Your task to perform on an android device: turn on translation in the chrome app Image 0: 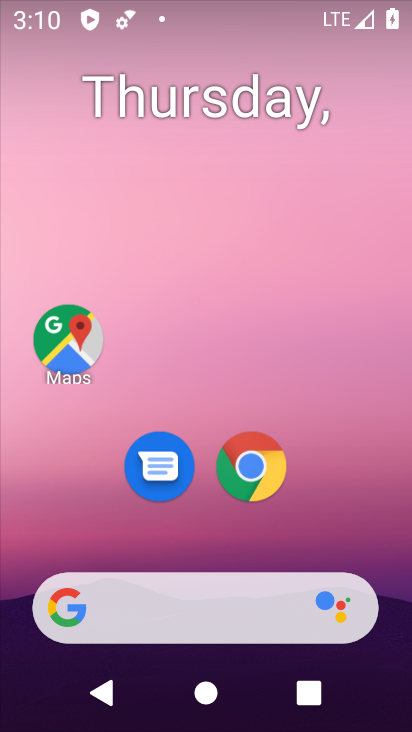
Step 0: drag from (218, 559) to (296, 48)
Your task to perform on an android device: turn on translation in the chrome app Image 1: 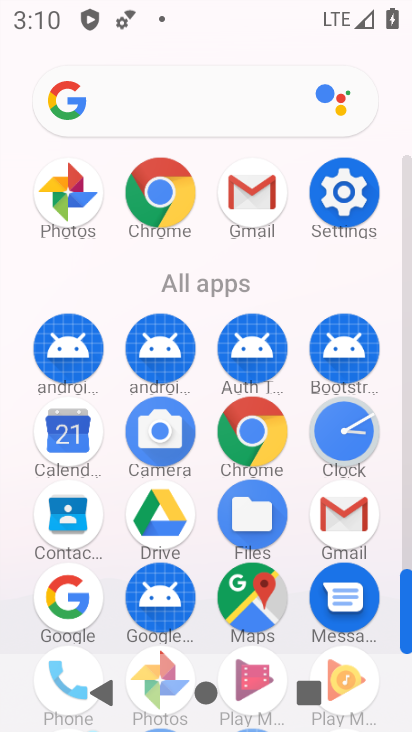
Step 1: click (251, 437)
Your task to perform on an android device: turn on translation in the chrome app Image 2: 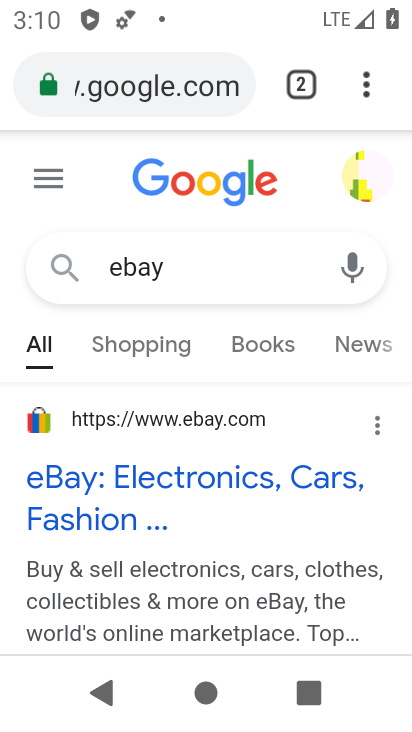
Step 2: drag from (364, 94) to (197, 511)
Your task to perform on an android device: turn on translation in the chrome app Image 3: 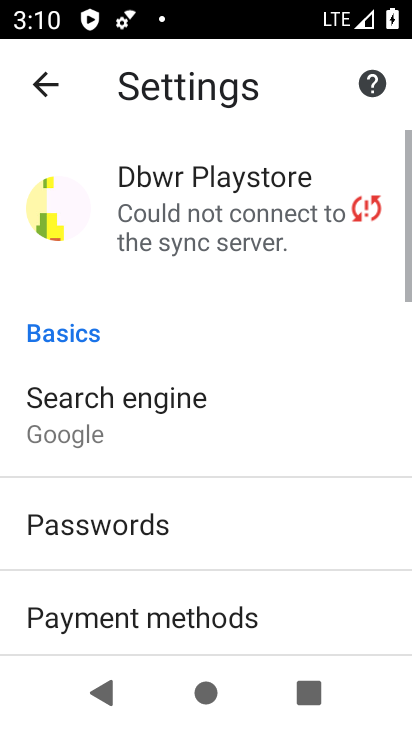
Step 3: drag from (213, 534) to (210, 107)
Your task to perform on an android device: turn on translation in the chrome app Image 4: 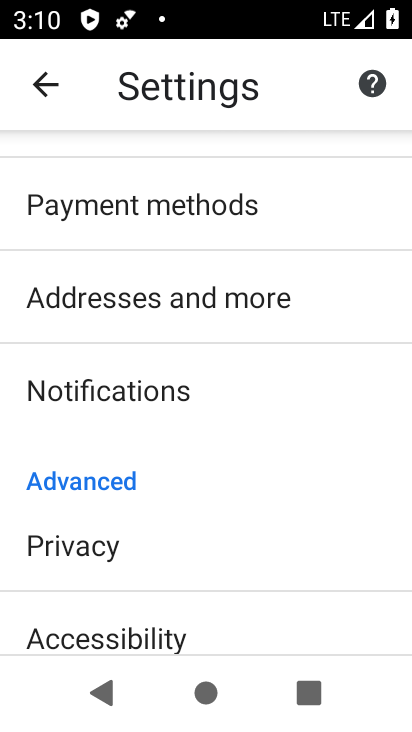
Step 4: drag from (175, 632) to (166, 234)
Your task to perform on an android device: turn on translation in the chrome app Image 5: 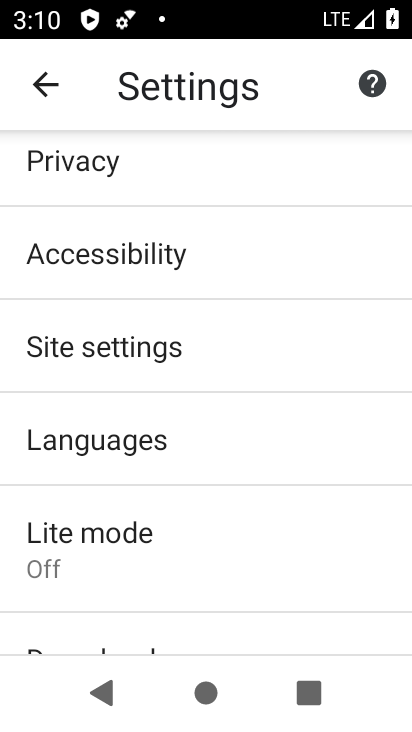
Step 5: drag from (113, 351) to (122, 270)
Your task to perform on an android device: turn on translation in the chrome app Image 6: 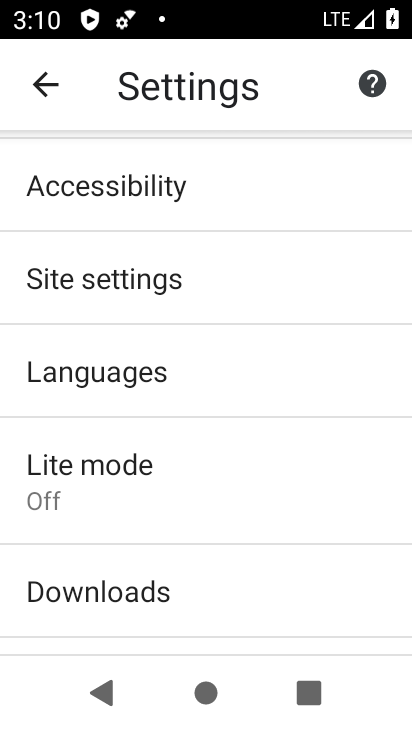
Step 6: click (105, 345)
Your task to perform on an android device: turn on translation in the chrome app Image 7: 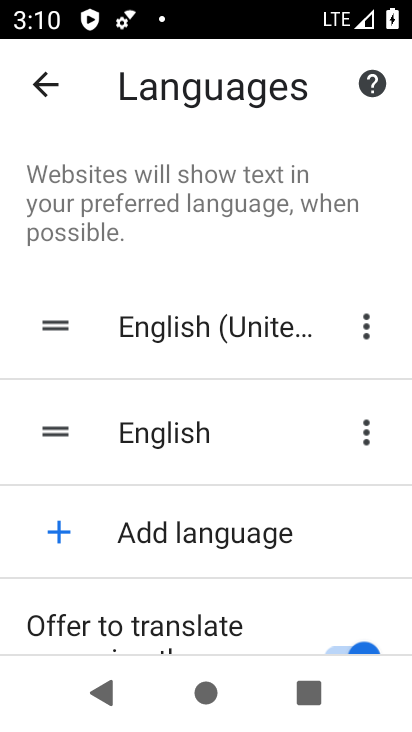
Step 7: task complete